Your task to perform on an android device: add a label to a message in the gmail app Image 0: 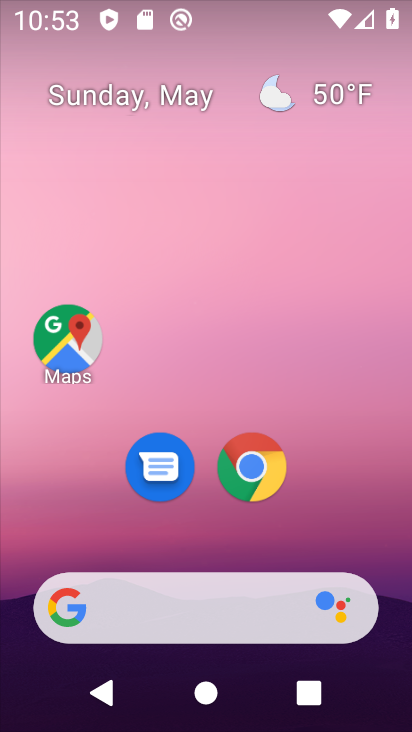
Step 0: drag from (204, 567) to (225, 209)
Your task to perform on an android device: add a label to a message in the gmail app Image 1: 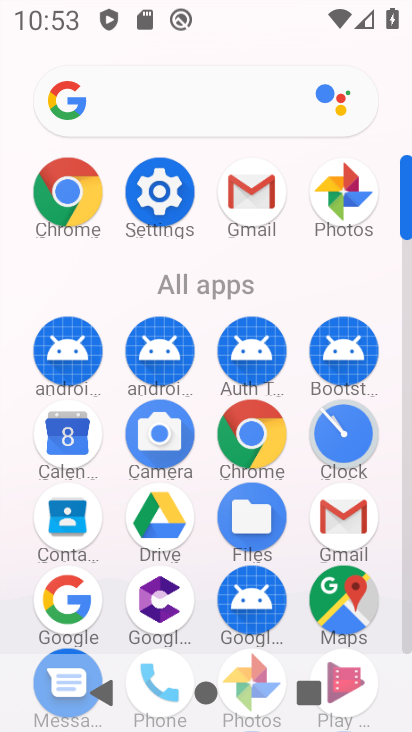
Step 1: click (273, 206)
Your task to perform on an android device: add a label to a message in the gmail app Image 2: 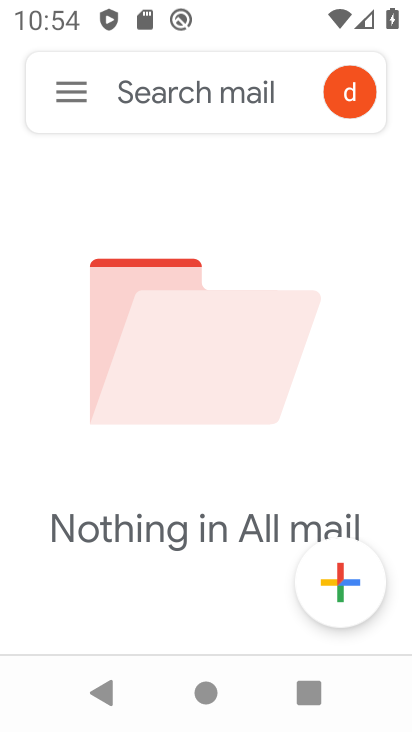
Step 2: task complete